Your task to perform on an android device: Open location settings Image 0: 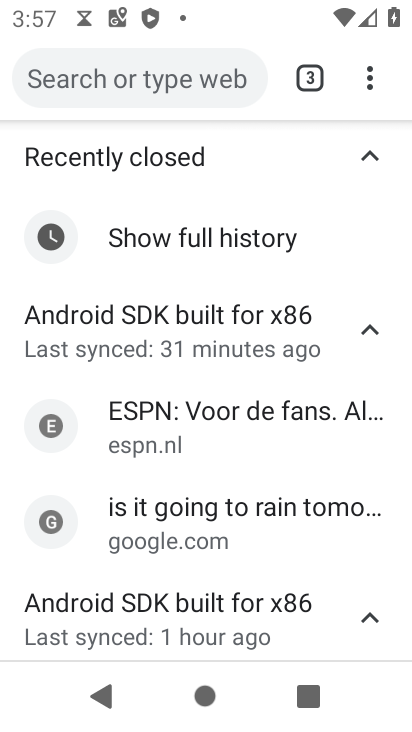
Step 0: press back button
Your task to perform on an android device: Open location settings Image 1: 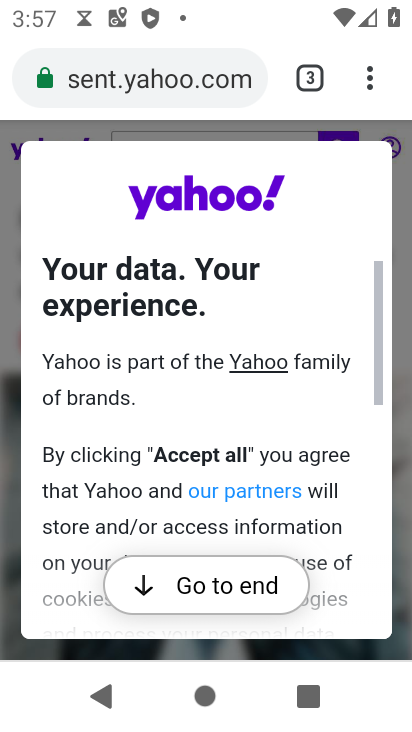
Step 1: press back button
Your task to perform on an android device: Open location settings Image 2: 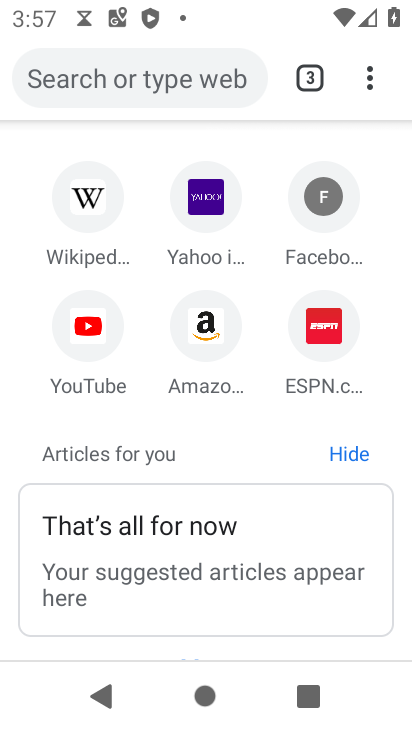
Step 2: press back button
Your task to perform on an android device: Open location settings Image 3: 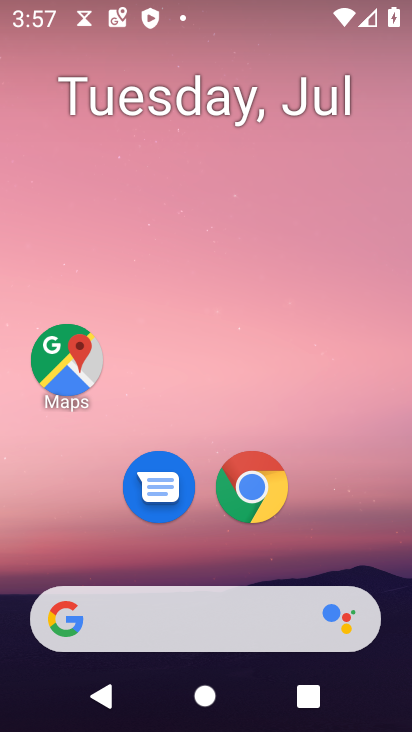
Step 3: drag from (166, 554) to (234, 21)
Your task to perform on an android device: Open location settings Image 4: 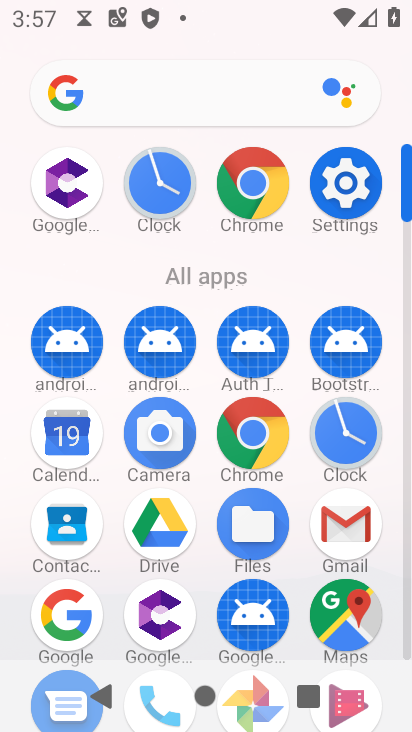
Step 4: click (346, 191)
Your task to perform on an android device: Open location settings Image 5: 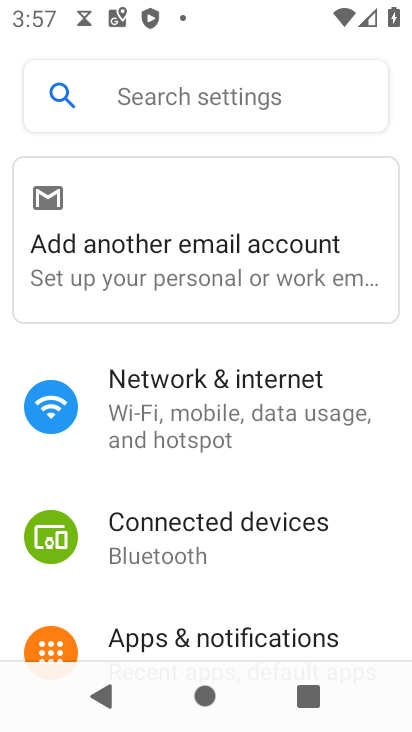
Step 5: drag from (163, 612) to (316, 13)
Your task to perform on an android device: Open location settings Image 6: 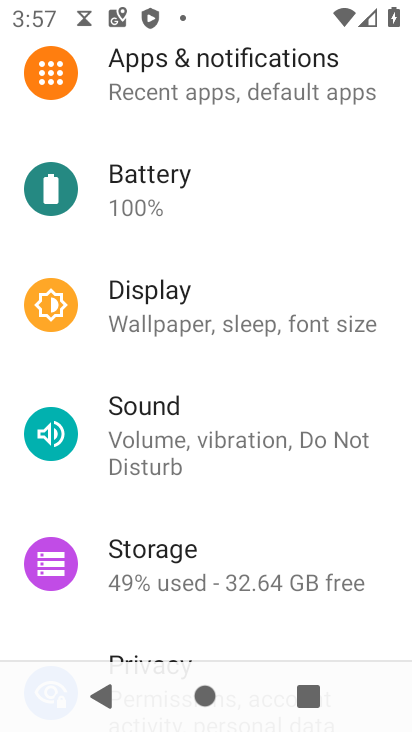
Step 6: drag from (189, 570) to (311, 60)
Your task to perform on an android device: Open location settings Image 7: 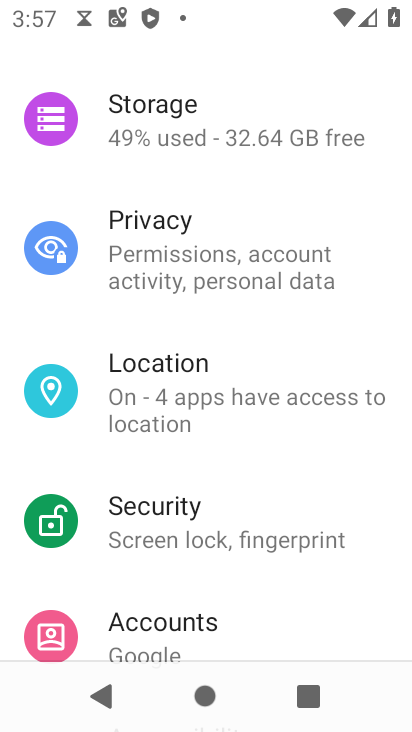
Step 7: click (113, 387)
Your task to perform on an android device: Open location settings Image 8: 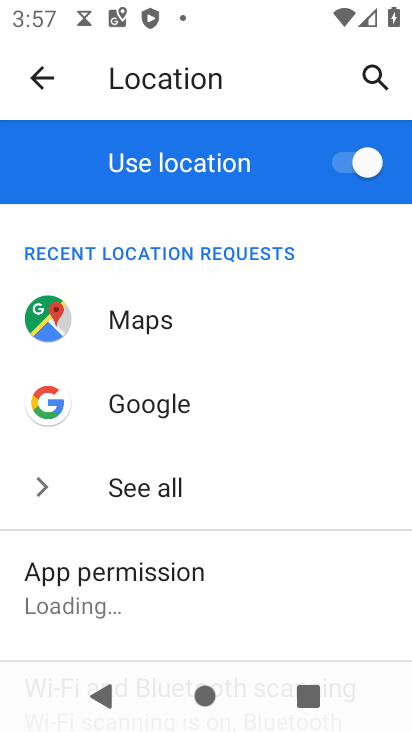
Step 8: task complete